Your task to perform on an android device: Open Google Maps and go to "Timeline" Image 0: 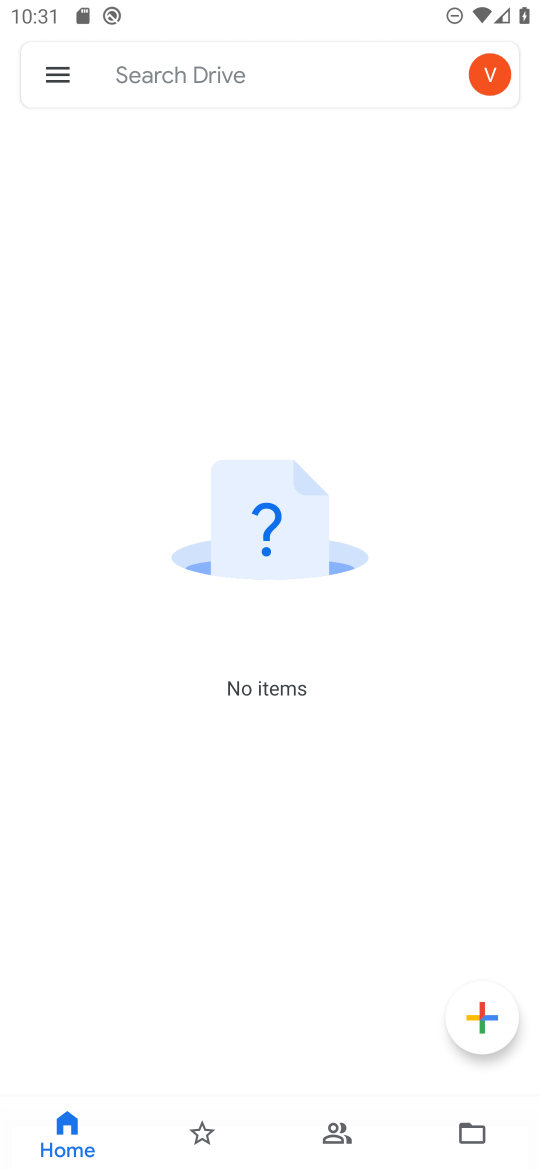
Step 0: press home button
Your task to perform on an android device: Open Google Maps and go to "Timeline" Image 1: 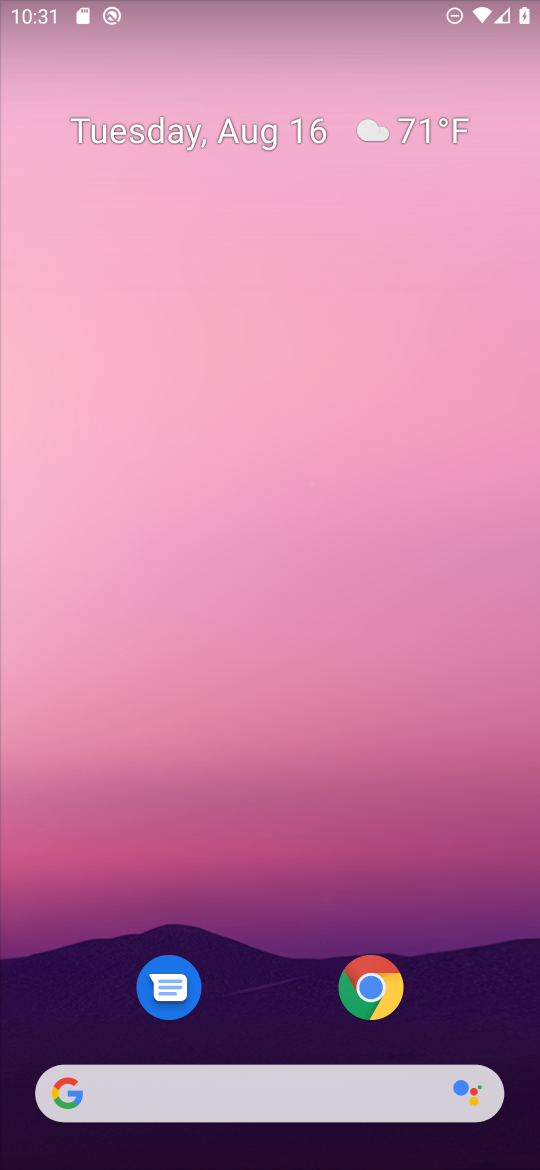
Step 1: drag from (41, 1142) to (316, 281)
Your task to perform on an android device: Open Google Maps and go to "Timeline" Image 2: 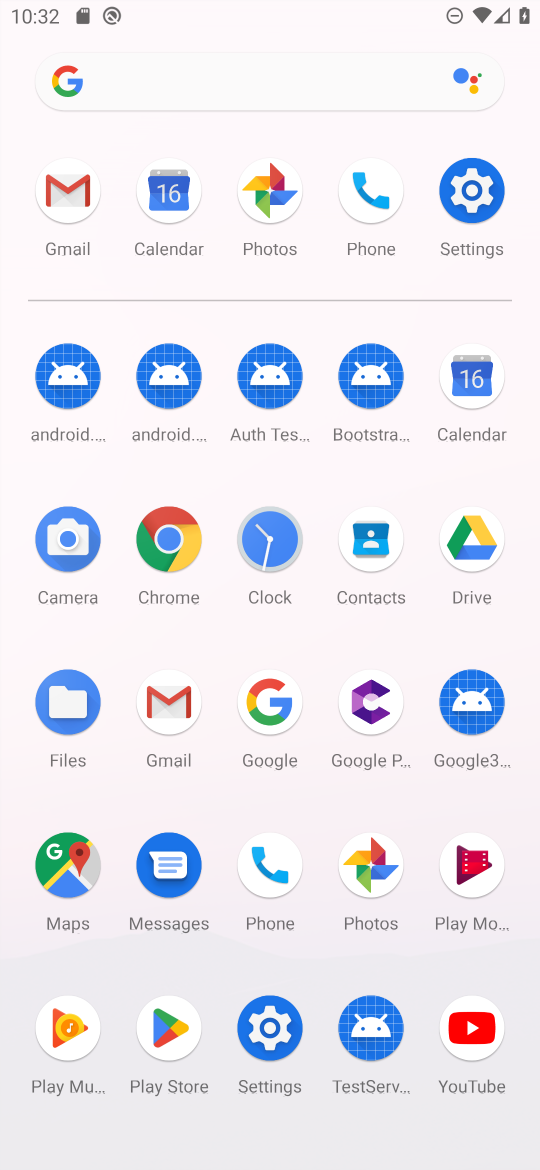
Step 2: click (46, 859)
Your task to perform on an android device: Open Google Maps and go to "Timeline" Image 3: 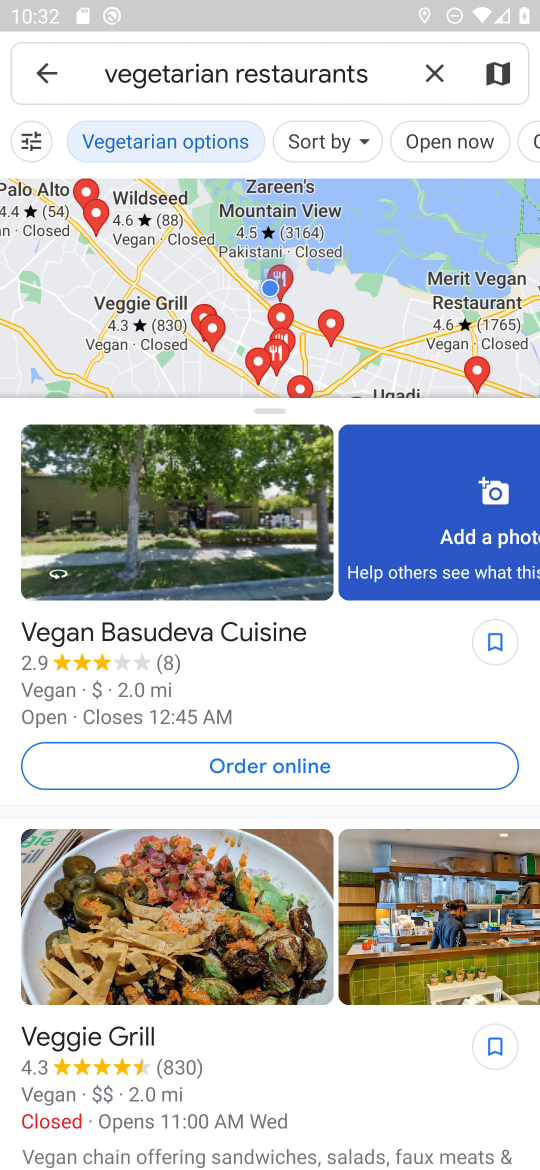
Step 3: click (45, 71)
Your task to perform on an android device: Open Google Maps and go to "Timeline" Image 4: 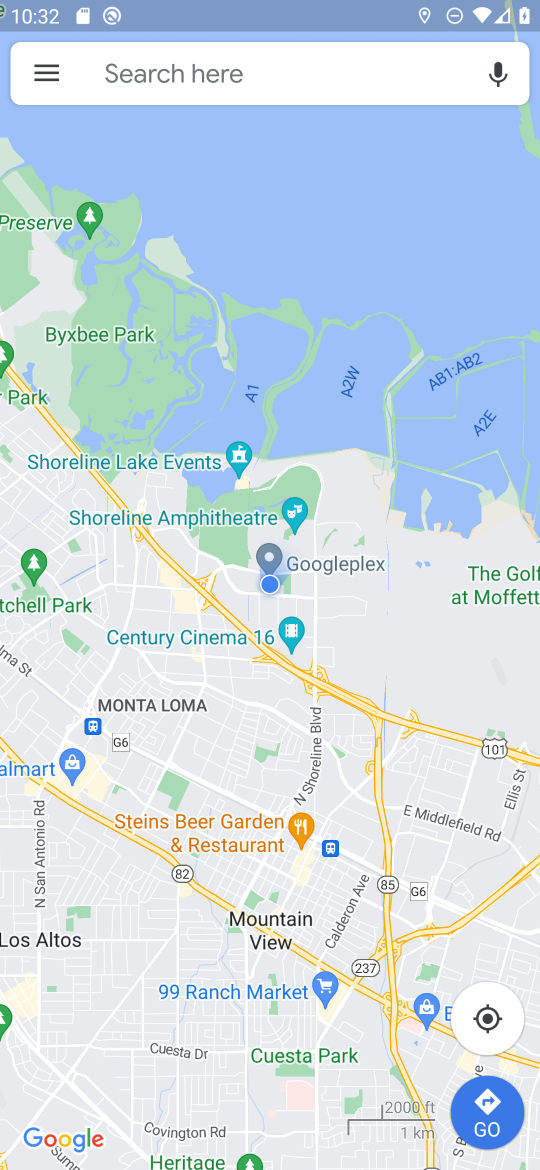
Step 4: click (45, 71)
Your task to perform on an android device: Open Google Maps and go to "Timeline" Image 5: 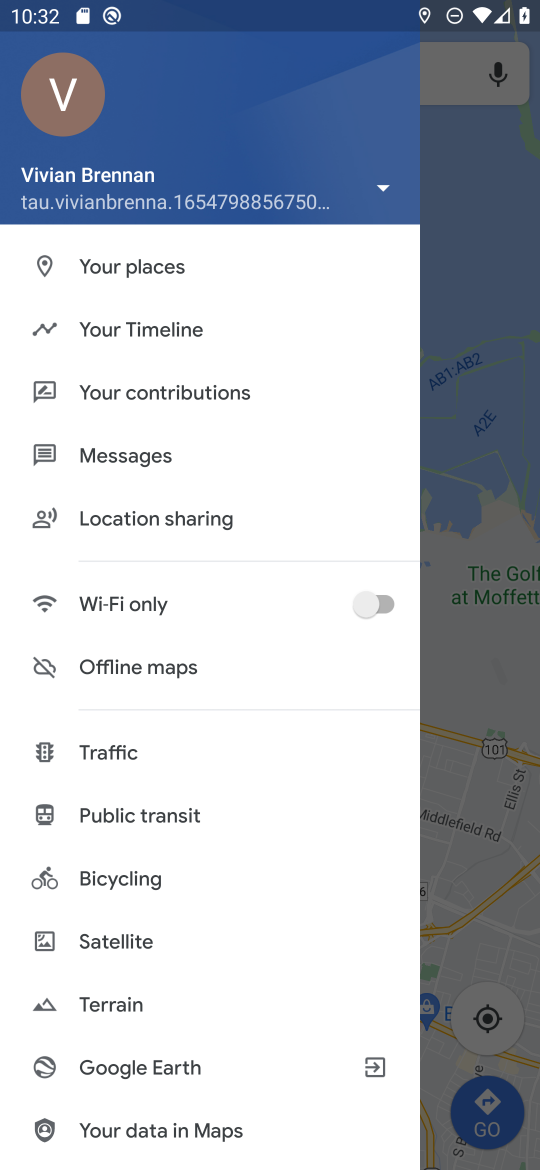
Step 5: click (135, 322)
Your task to perform on an android device: Open Google Maps and go to "Timeline" Image 6: 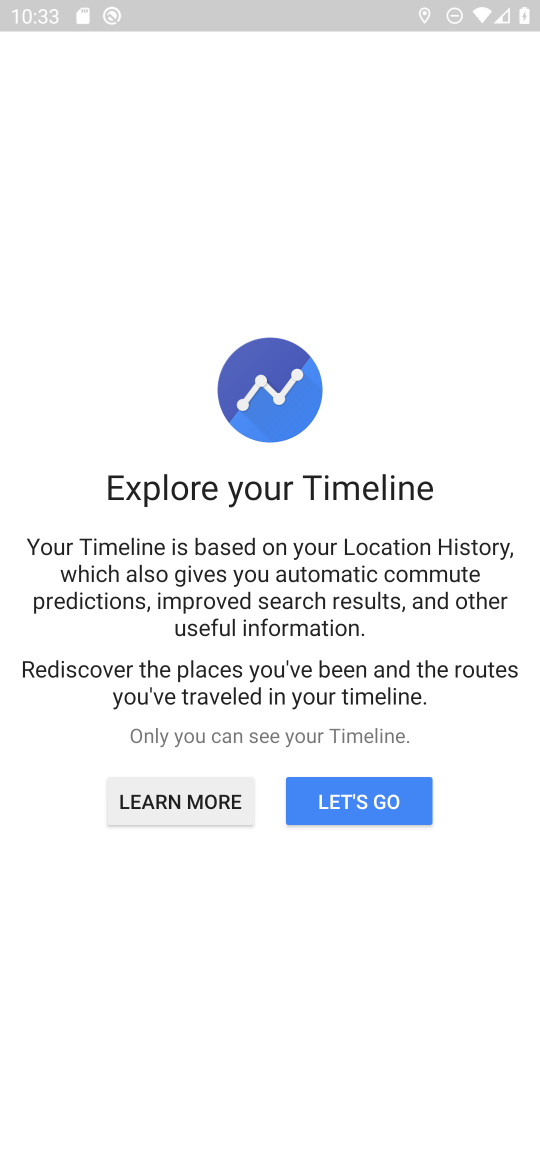
Step 6: task complete